Your task to perform on an android device: Open internet settings Image 0: 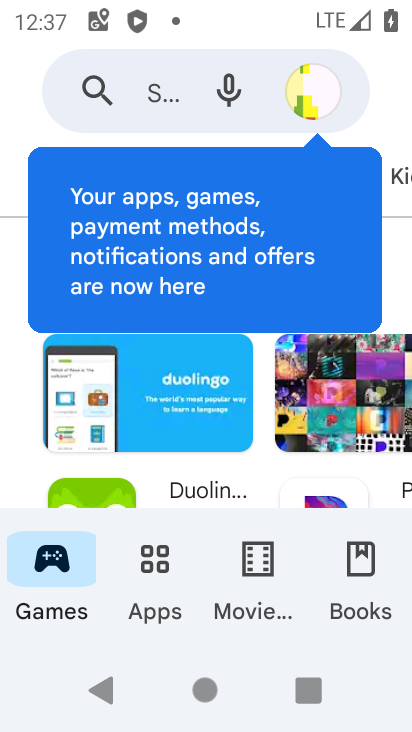
Step 0: press back button
Your task to perform on an android device: Open internet settings Image 1: 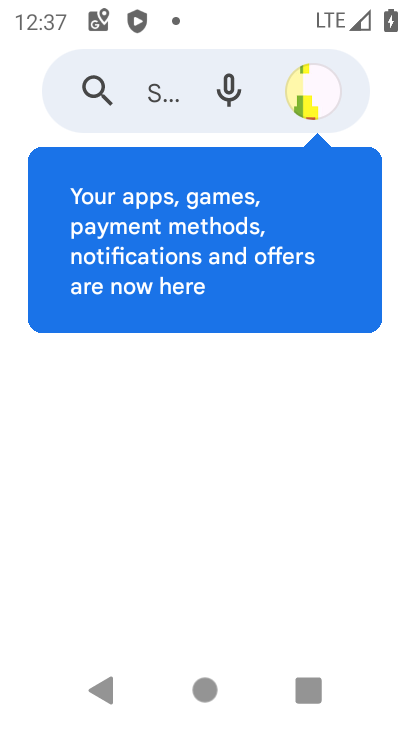
Step 1: press back button
Your task to perform on an android device: Open internet settings Image 2: 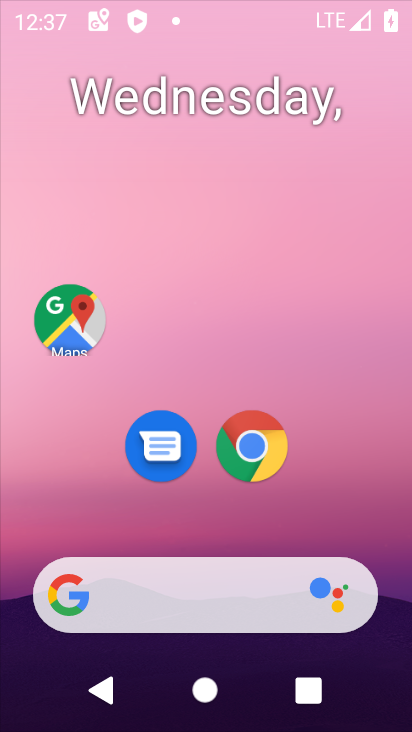
Step 2: press back button
Your task to perform on an android device: Open internet settings Image 3: 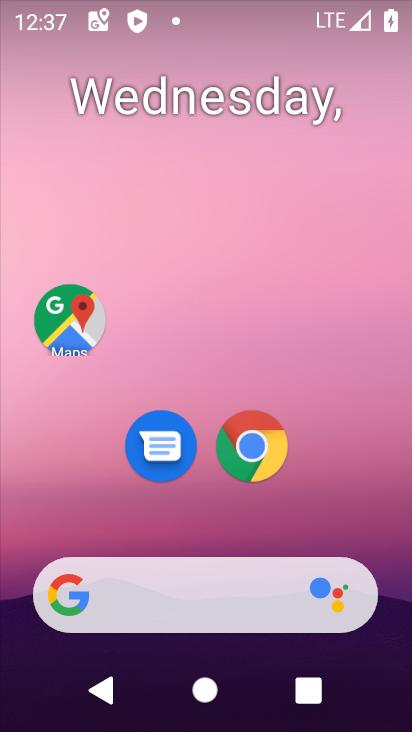
Step 3: drag from (273, 618) to (232, 9)
Your task to perform on an android device: Open internet settings Image 4: 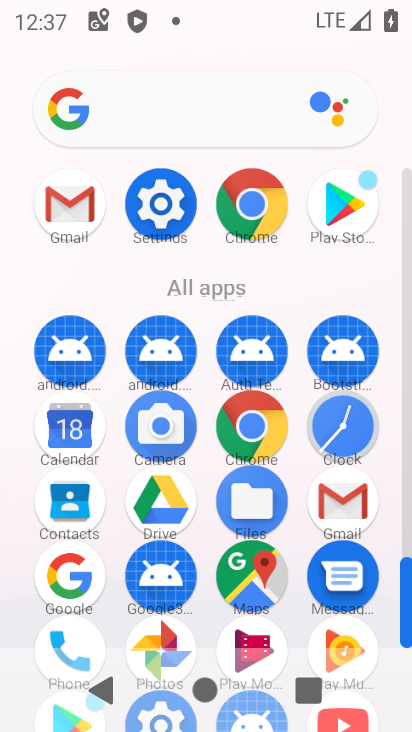
Step 4: click (153, 206)
Your task to perform on an android device: Open internet settings Image 5: 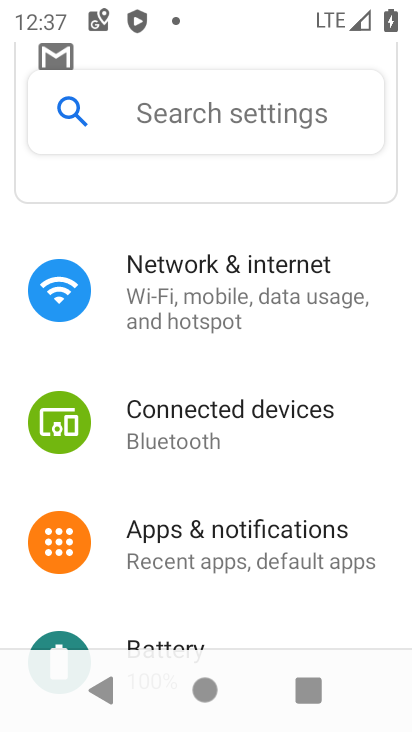
Step 5: click (207, 290)
Your task to perform on an android device: Open internet settings Image 6: 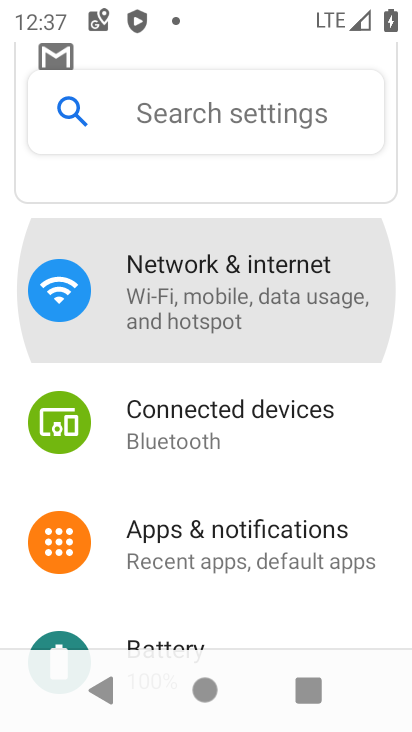
Step 6: click (203, 291)
Your task to perform on an android device: Open internet settings Image 7: 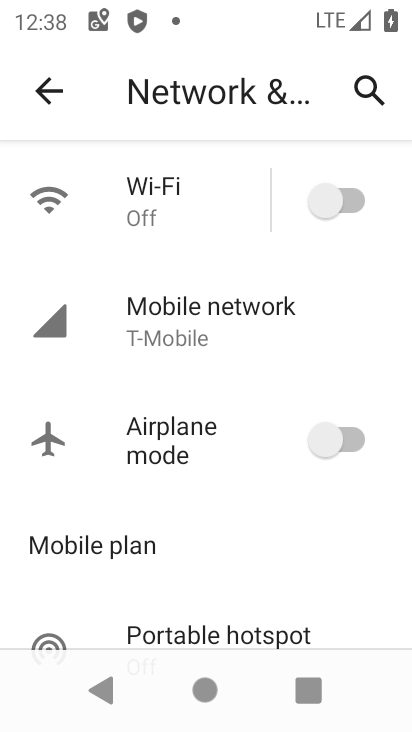
Step 7: task complete